Your task to perform on an android device: Do I have any events today? Image 0: 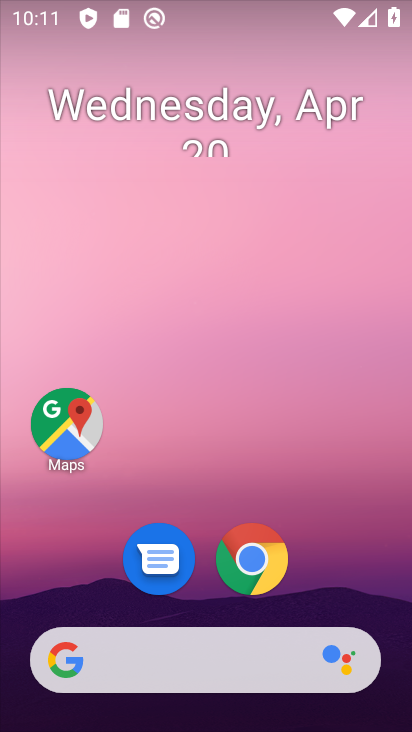
Step 0: drag from (201, 531) to (198, 66)
Your task to perform on an android device: Do I have any events today? Image 1: 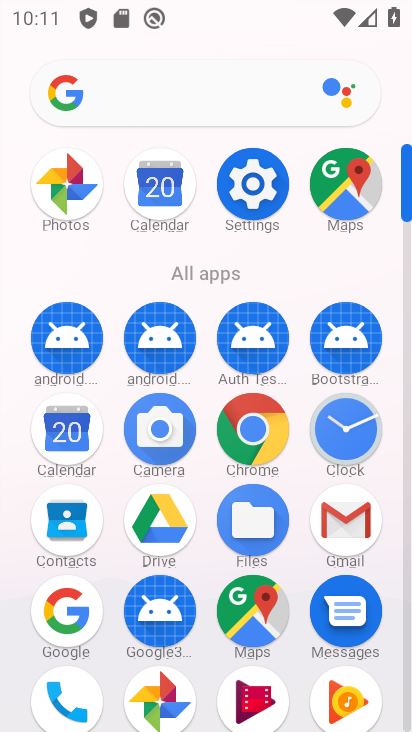
Step 1: click (58, 440)
Your task to perform on an android device: Do I have any events today? Image 2: 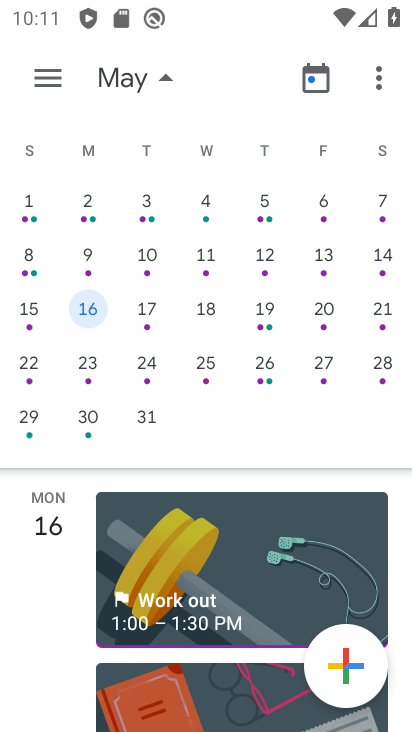
Step 2: drag from (66, 263) to (410, 240)
Your task to perform on an android device: Do I have any events today? Image 3: 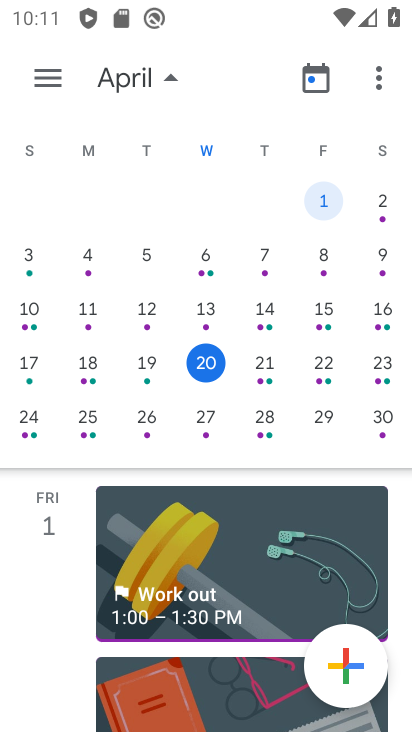
Step 3: click (47, 81)
Your task to perform on an android device: Do I have any events today? Image 4: 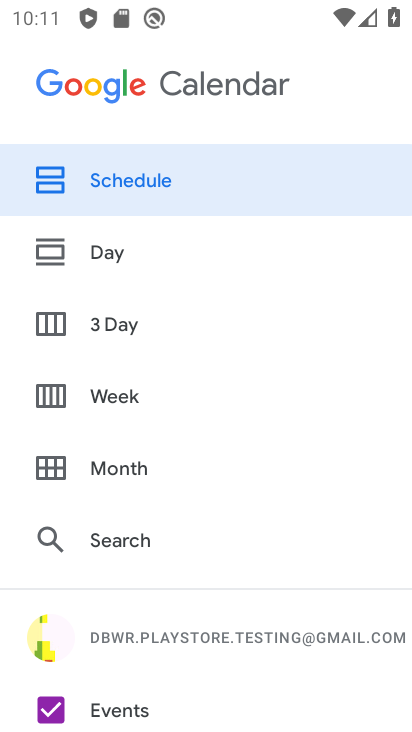
Step 4: drag from (118, 659) to (117, 251)
Your task to perform on an android device: Do I have any events today? Image 5: 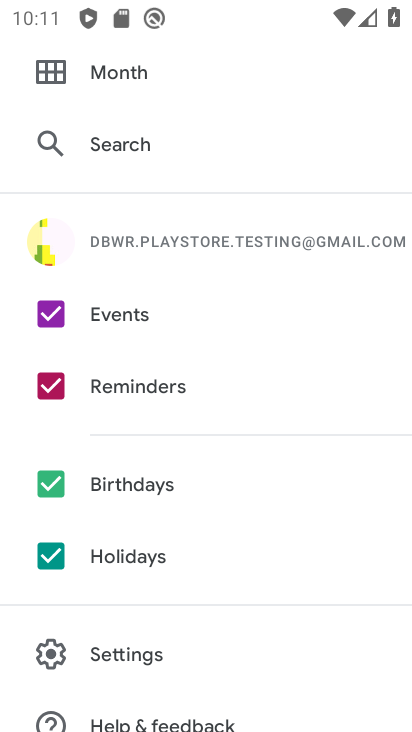
Step 5: click (49, 555)
Your task to perform on an android device: Do I have any events today? Image 6: 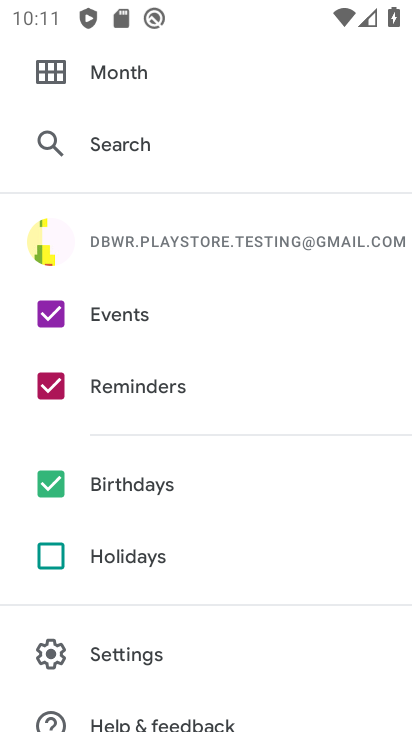
Step 6: click (49, 473)
Your task to perform on an android device: Do I have any events today? Image 7: 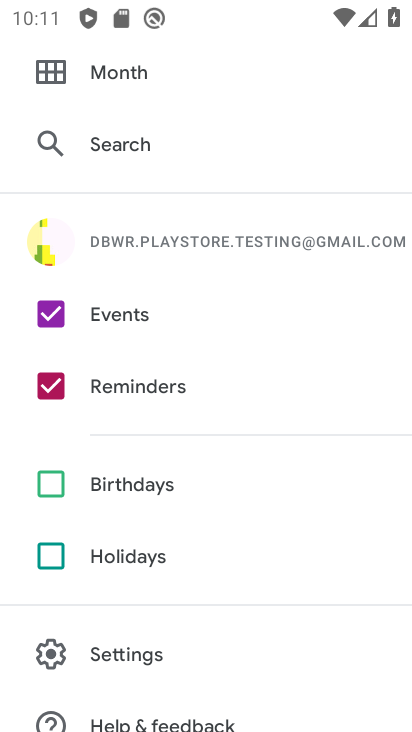
Step 7: click (45, 381)
Your task to perform on an android device: Do I have any events today? Image 8: 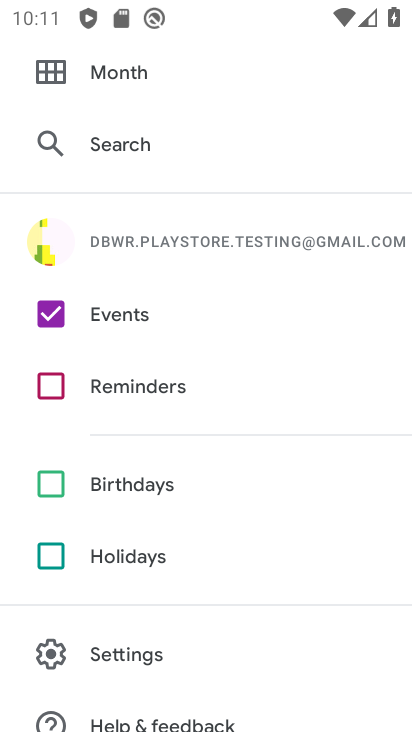
Step 8: drag from (238, 165) to (256, 597)
Your task to perform on an android device: Do I have any events today? Image 9: 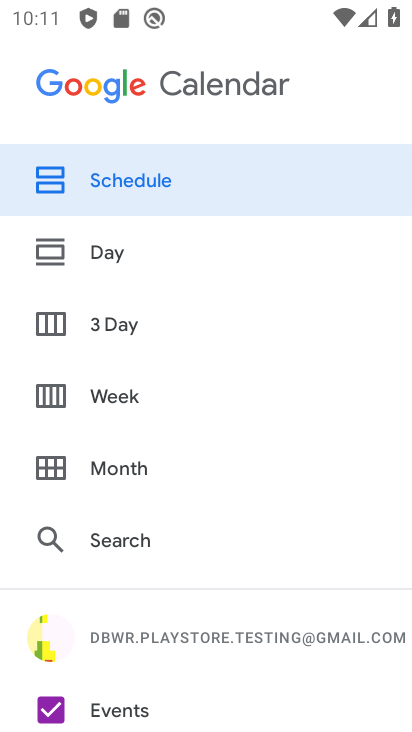
Step 9: drag from (330, 383) to (17, 401)
Your task to perform on an android device: Do I have any events today? Image 10: 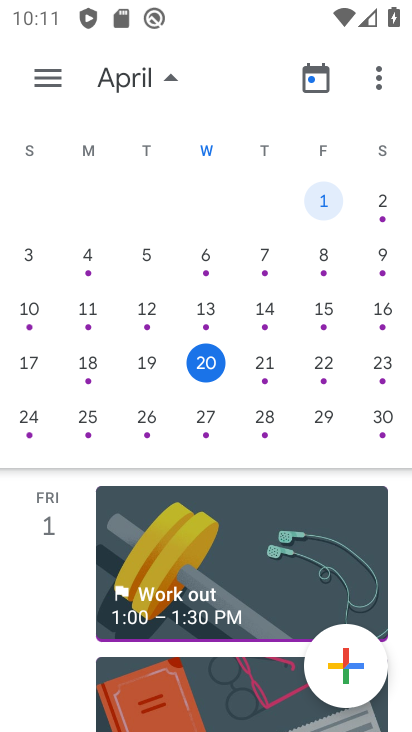
Step 10: click (202, 360)
Your task to perform on an android device: Do I have any events today? Image 11: 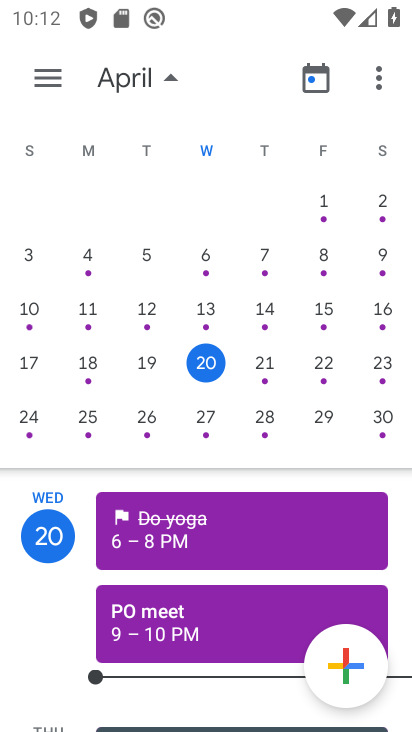
Step 11: task complete